Your task to perform on an android device: Go to Maps Image 0: 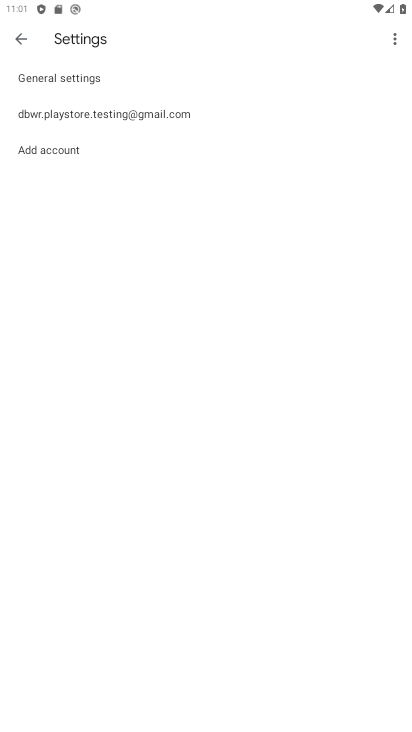
Step 0: press home button
Your task to perform on an android device: Go to Maps Image 1: 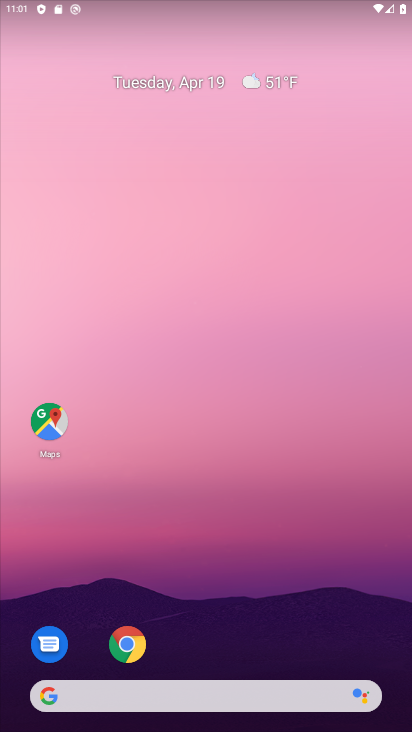
Step 1: click (49, 420)
Your task to perform on an android device: Go to Maps Image 2: 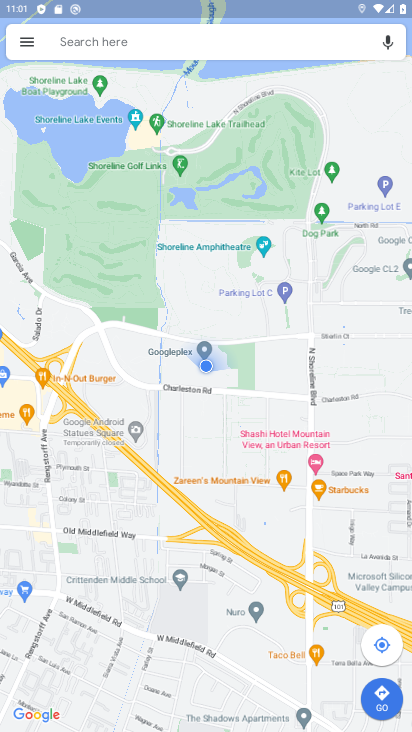
Step 2: task complete